Your task to perform on an android device: Go to display settings Image 0: 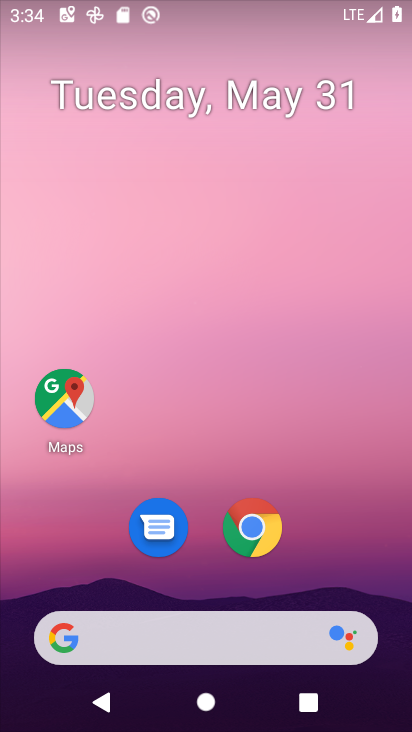
Step 0: drag from (363, 473) to (386, 5)
Your task to perform on an android device: Go to display settings Image 1: 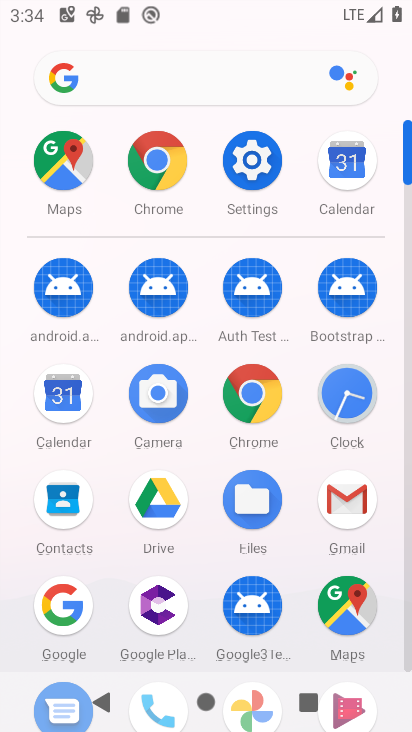
Step 1: click (260, 167)
Your task to perform on an android device: Go to display settings Image 2: 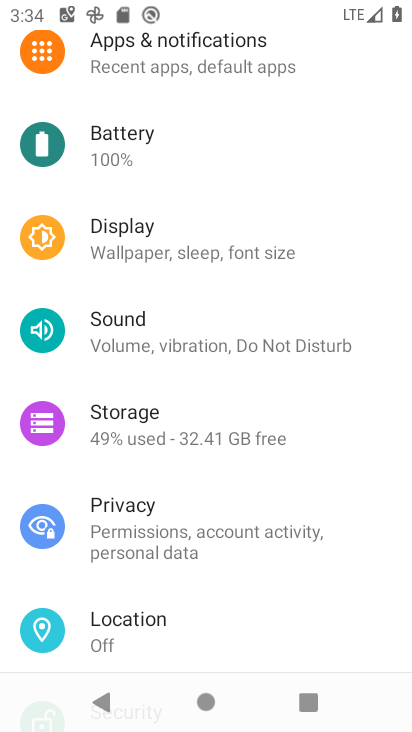
Step 2: click (164, 252)
Your task to perform on an android device: Go to display settings Image 3: 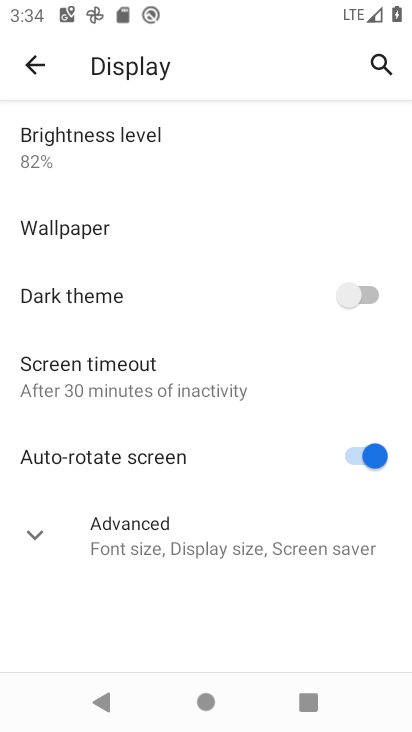
Step 3: task complete